Your task to perform on an android device: remove spam from my inbox in the gmail app Image 0: 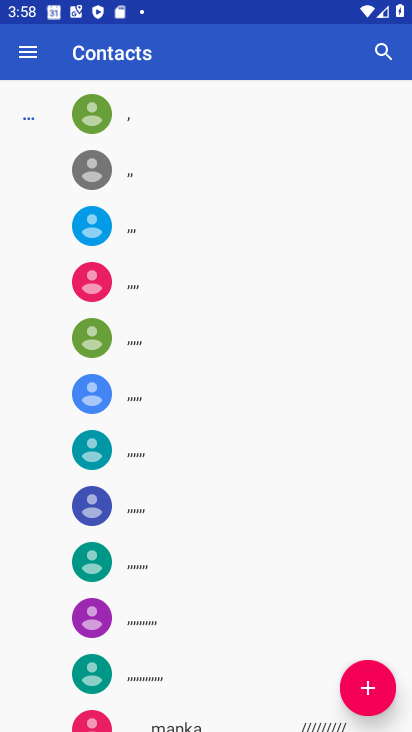
Step 0: press home button
Your task to perform on an android device: remove spam from my inbox in the gmail app Image 1: 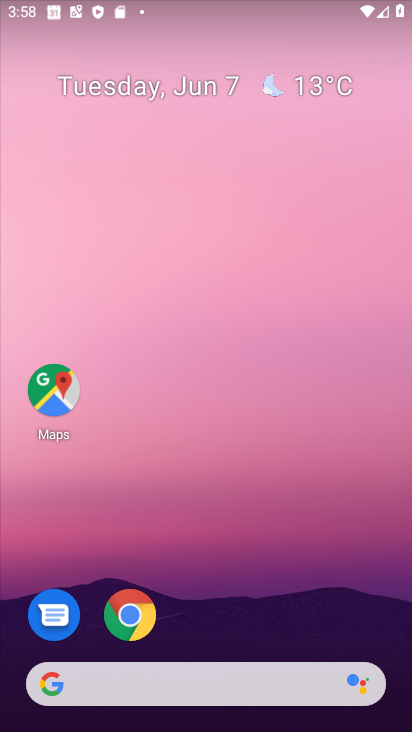
Step 1: drag from (247, 613) to (289, 5)
Your task to perform on an android device: remove spam from my inbox in the gmail app Image 2: 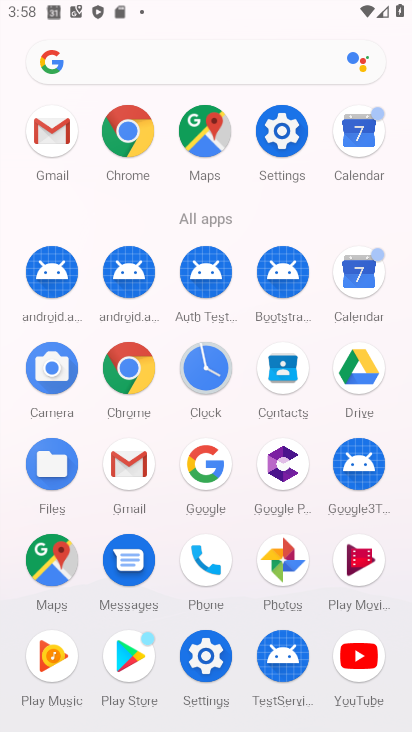
Step 2: click (123, 478)
Your task to perform on an android device: remove spam from my inbox in the gmail app Image 3: 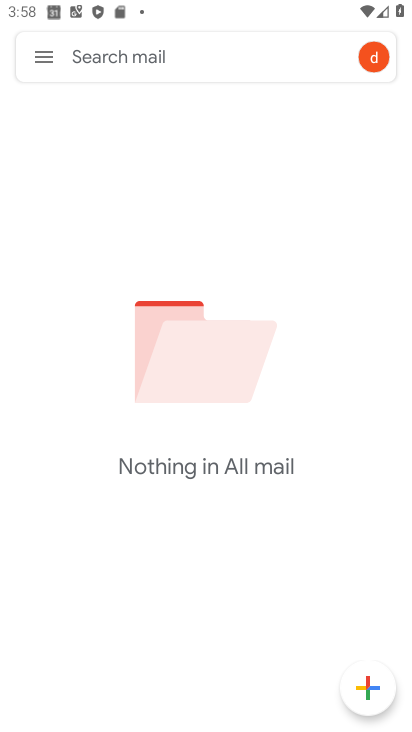
Step 3: click (40, 43)
Your task to perform on an android device: remove spam from my inbox in the gmail app Image 4: 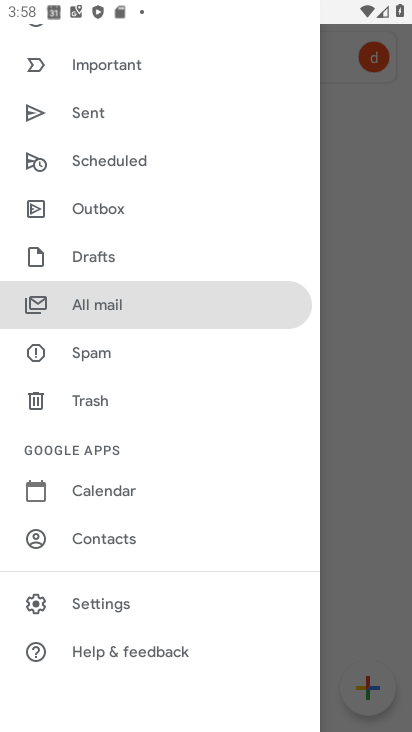
Step 4: click (80, 348)
Your task to perform on an android device: remove spam from my inbox in the gmail app Image 5: 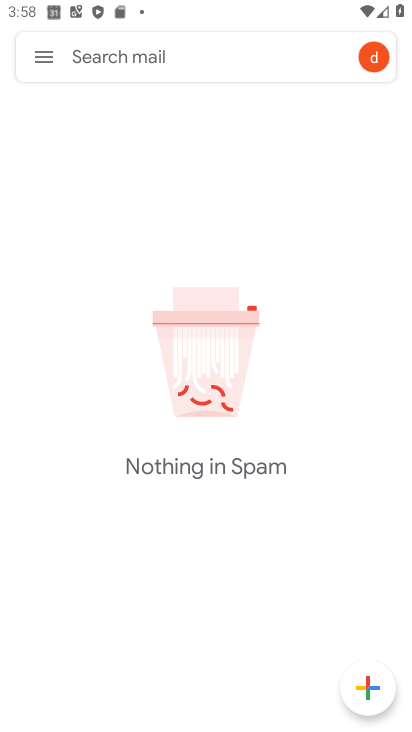
Step 5: task complete